Your task to perform on an android device: Go to accessibility settings Image 0: 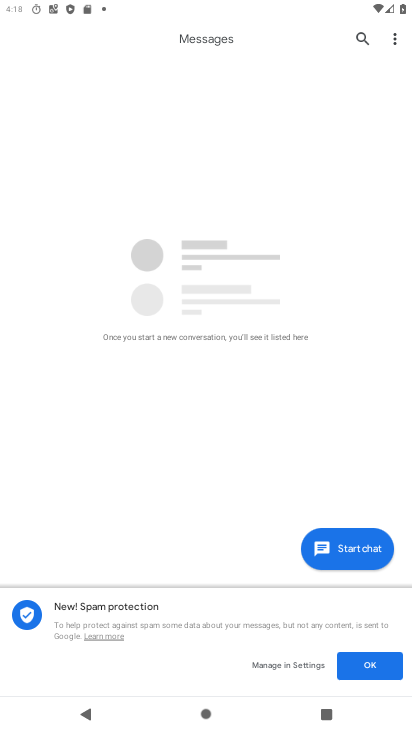
Step 0: press back button
Your task to perform on an android device: Go to accessibility settings Image 1: 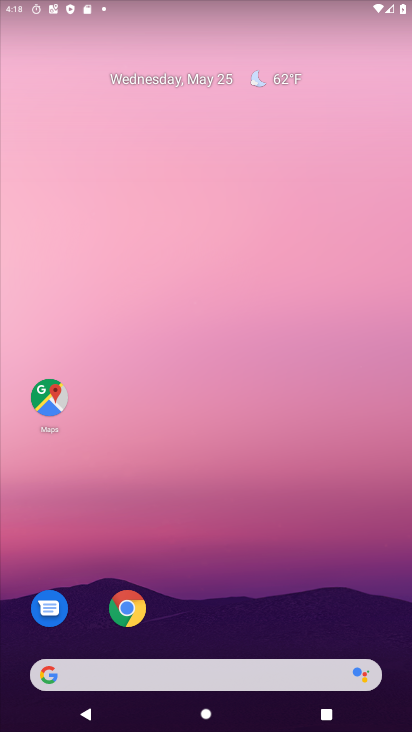
Step 1: drag from (287, 636) to (318, 117)
Your task to perform on an android device: Go to accessibility settings Image 2: 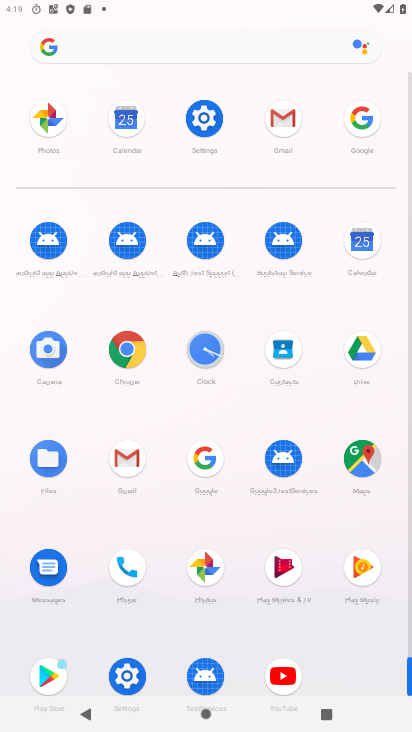
Step 2: click (206, 121)
Your task to perform on an android device: Go to accessibility settings Image 3: 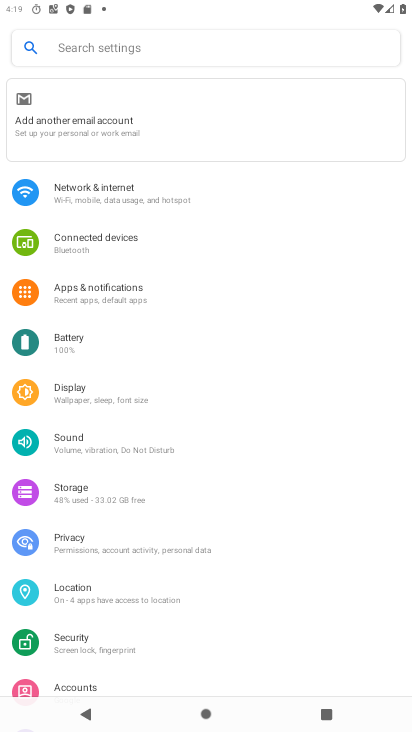
Step 3: drag from (163, 584) to (280, 242)
Your task to perform on an android device: Go to accessibility settings Image 4: 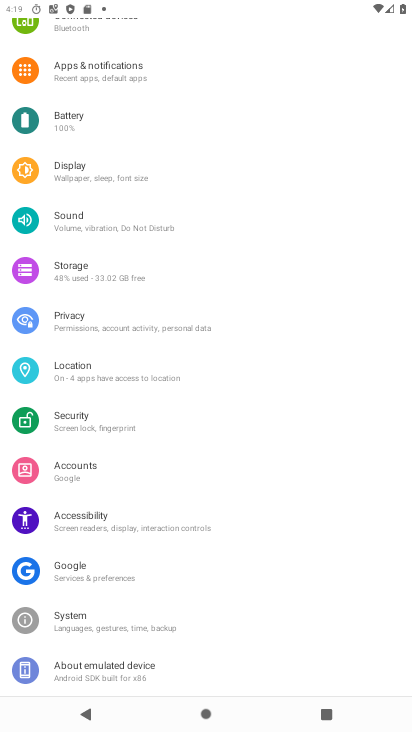
Step 4: click (76, 512)
Your task to perform on an android device: Go to accessibility settings Image 5: 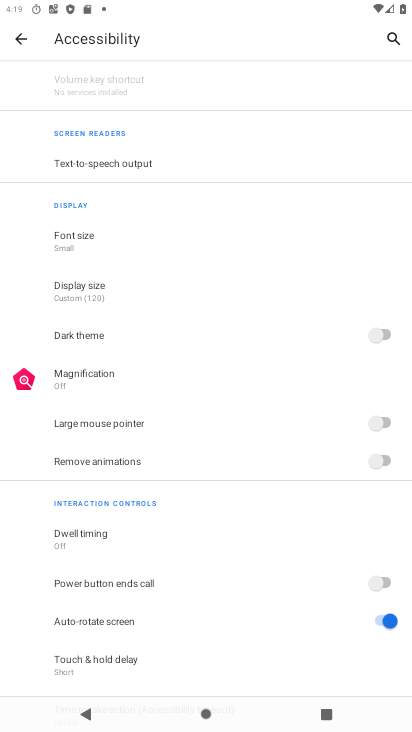
Step 5: task complete